Your task to perform on an android device: change notifications settings Image 0: 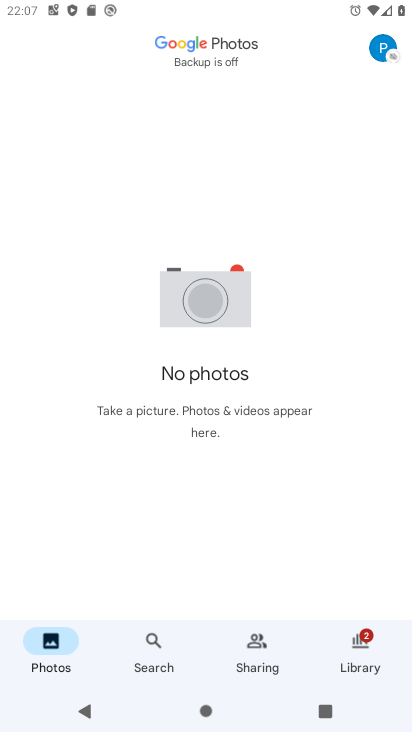
Step 0: press home button
Your task to perform on an android device: change notifications settings Image 1: 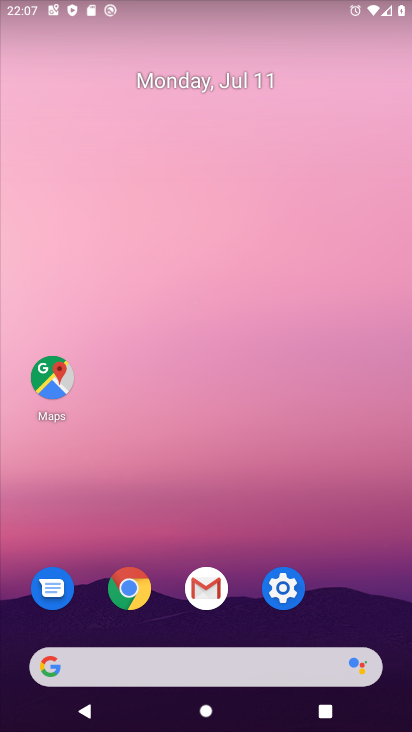
Step 1: click (285, 586)
Your task to perform on an android device: change notifications settings Image 2: 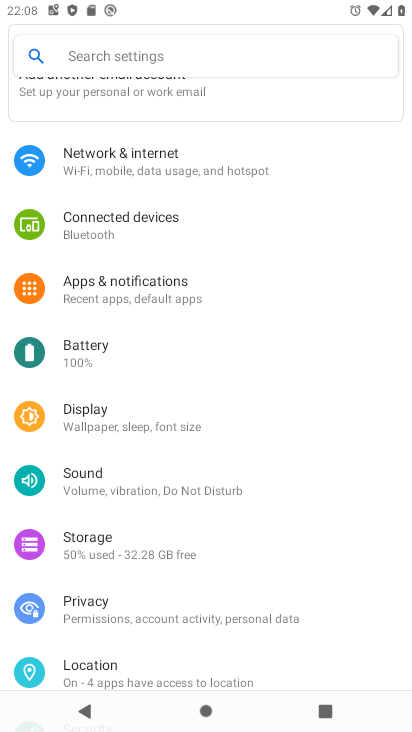
Step 2: task complete